Your task to perform on an android device: add a contact in the contacts app Image 0: 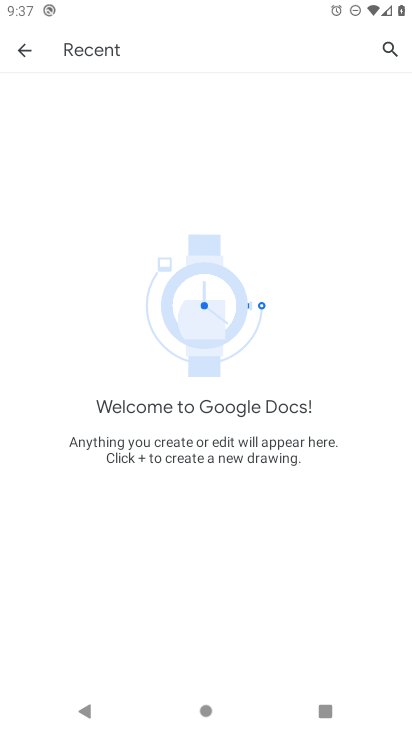
Step 0: press home button
Your task to perform on an android device: add a contact in the contacts app Image 1: 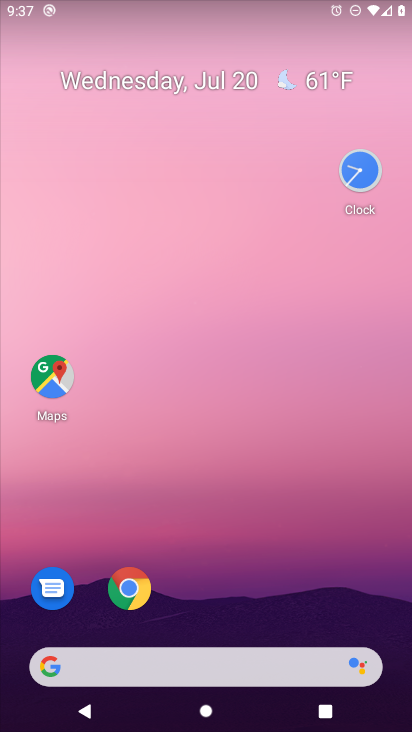
Step 1: drag from (57, 688) to (289, 165)
Your task to perform on an android device: add a contact in the contacts app Image 2: 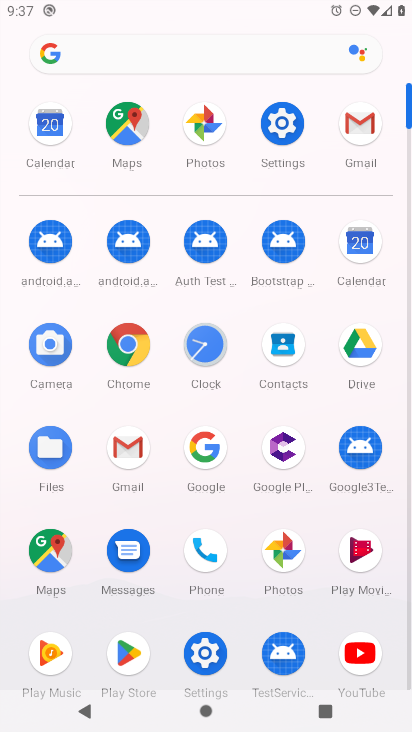
Step 2: click (195, 560)
Your task to perform on an android device: add a contact in the contacts app Image 3: 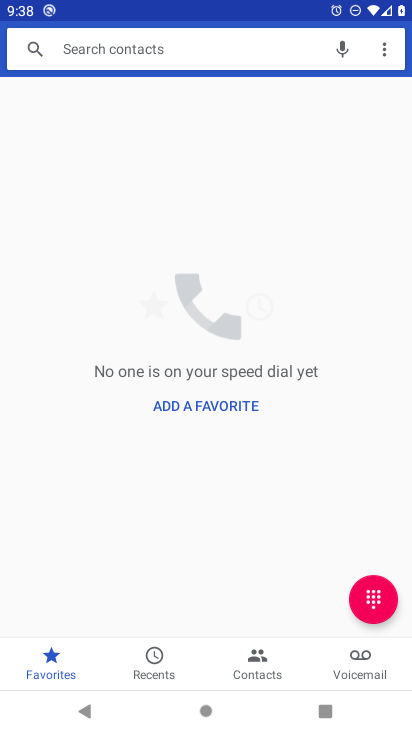
Step 3: click (153, 663)
Your task to perform on an android device: add a contact in the contacts app Image 4: 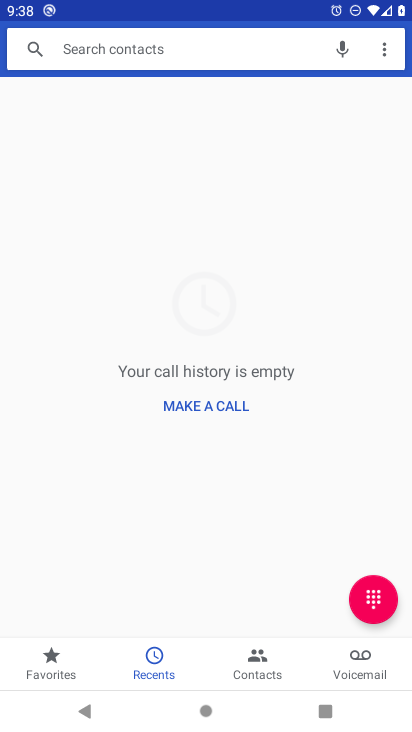
Step 4: click (274, 667)
Your task to perform on an android device: add a contact in the contacts app Image 5: 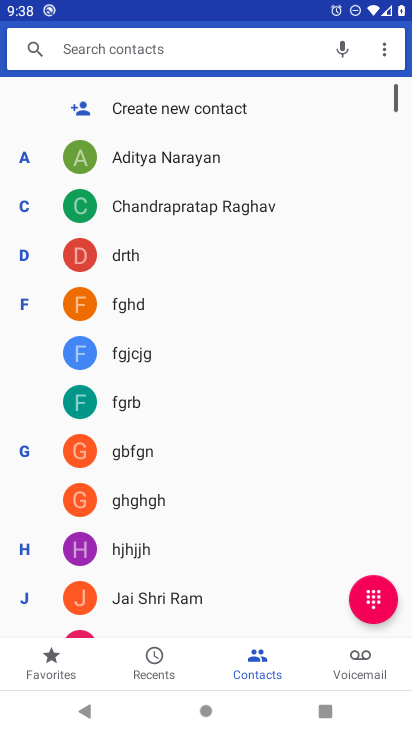
Step 5: click (200, 112)
Your task to perform on an android device: add a contact in the contacts app Image 6: 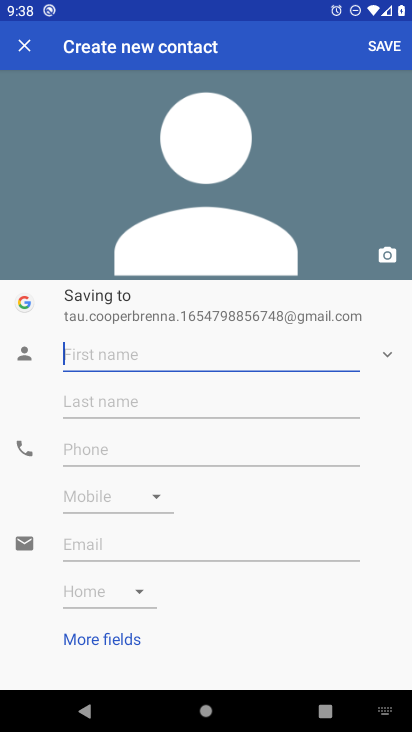
Step 6: type "masoom"
Your task to perform on an android device: add a contact in the contacts app Image 7: 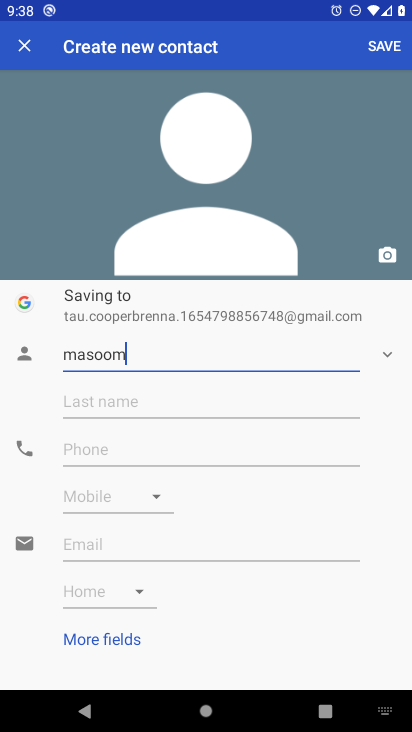
Step 7: type ""
Your task to perform on an android device: add a contact in the contacts app Image 8: 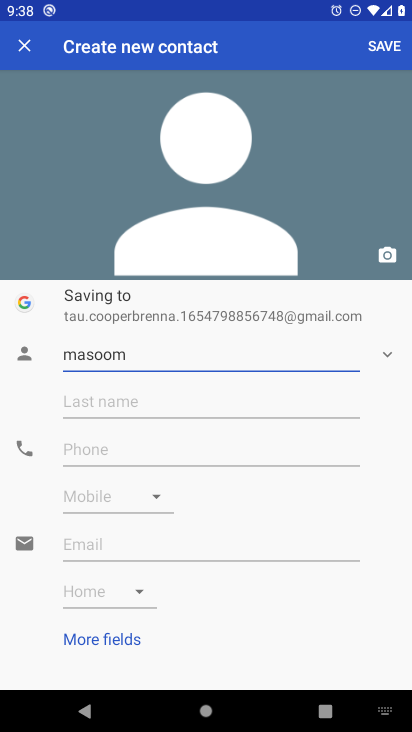
Step 8: click (384, 49)
Your task to perform on an android device: add a contact in the contacts app Image 9: 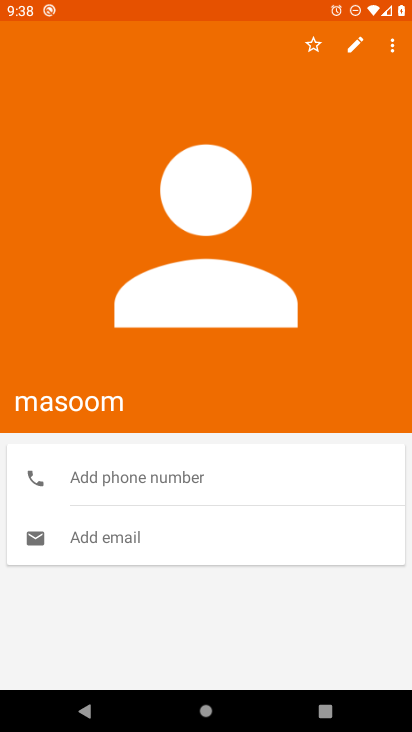
Step 9: task complete